Your task to perform on an android device: turn pop-ups off in chrome Image 0: 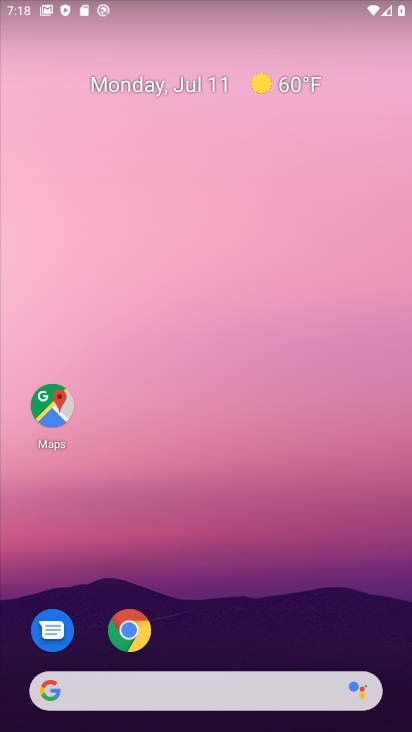
Step 0: click (132, 625)
Your task to perform on an android device: turn pop-ups off in chrome Image 1: 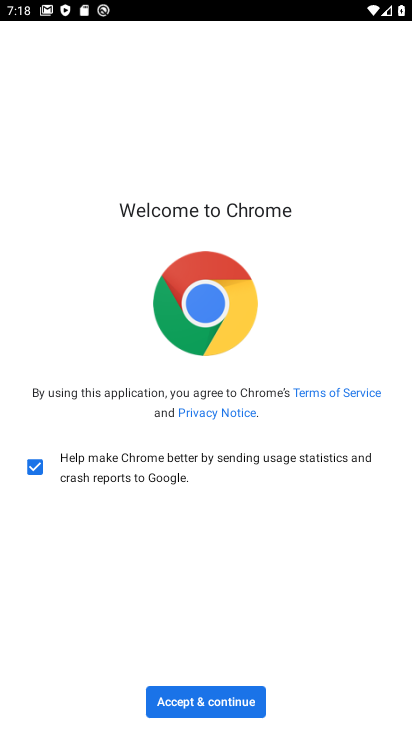
Step 1: click (200, 697)
Your task to perform on an android device: turn pop-ups off in chrome Image 2: 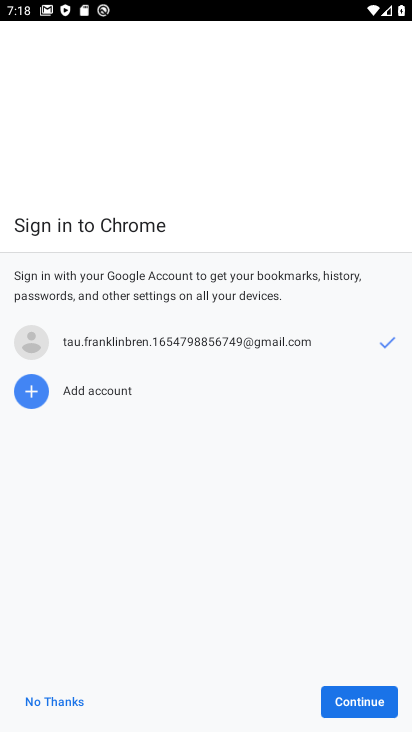
Step 2: click (347, 699)
Your task to perform on an android device: turn pop-ups off in chrome Image 3: 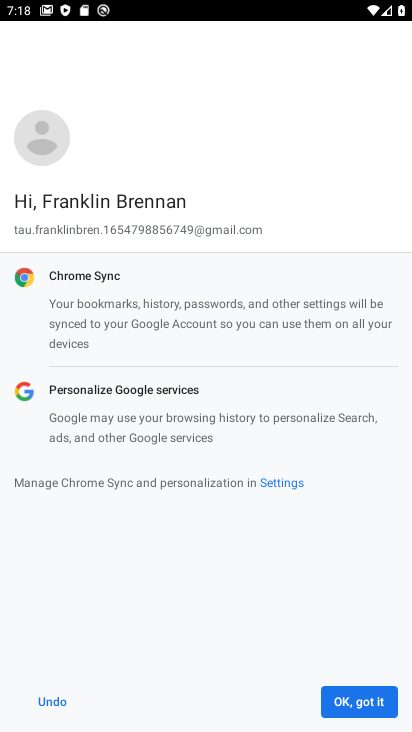
Step 3: click (347, 699)
Your task to perform on an android device: turn pop-ups off in chrome Image 4: 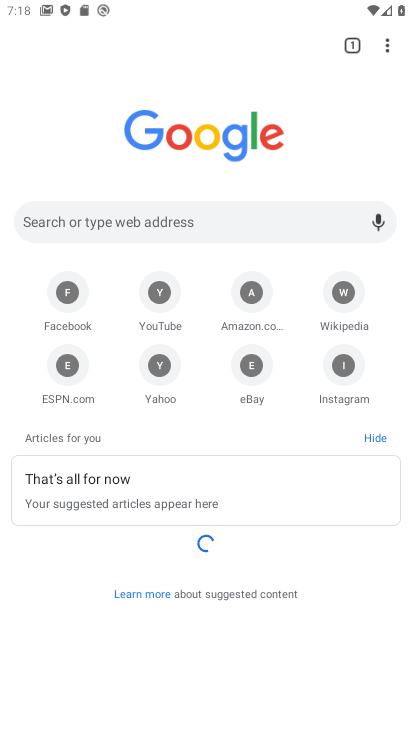
Step 4: click (387, 47)
Your task to perform on an android device: turn pop-ups off in chrome Image 5: 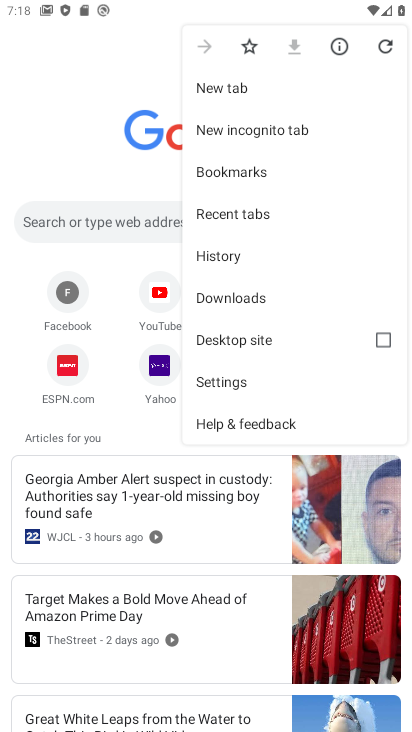
Step 5: click (219, 393)
Your task to perform on an android device: turn pop-ups off in chrome Image 6: 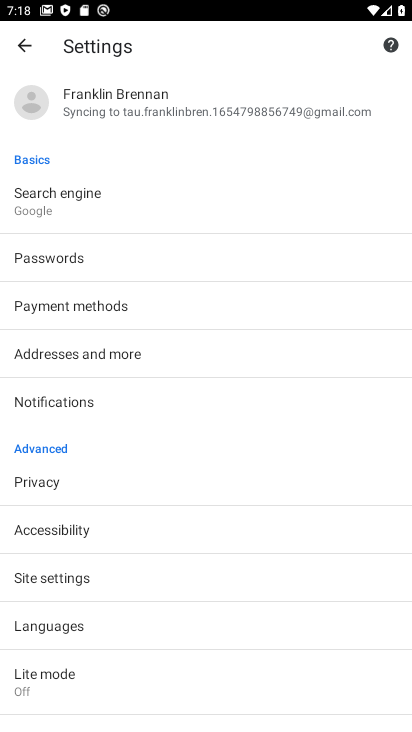
Step 6: click (59, 582)
Your task to perform on an android device: turn pop-ups off in chrome Image 7: 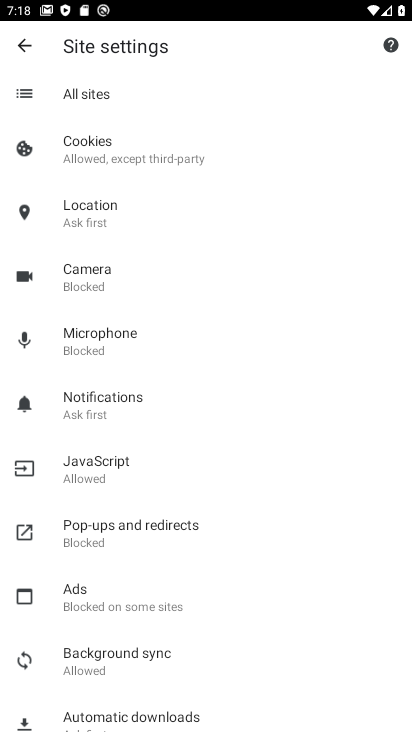
Step 7: click (91, 530)
Your task to perform on an android device: turn pop-ups off in chrome Image 8: 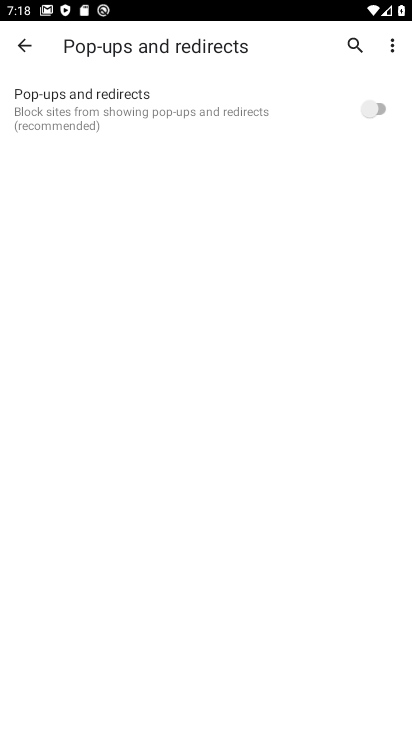
Step 8: task complete